Your task to perform on an android device: set the stopwatch Image 0: 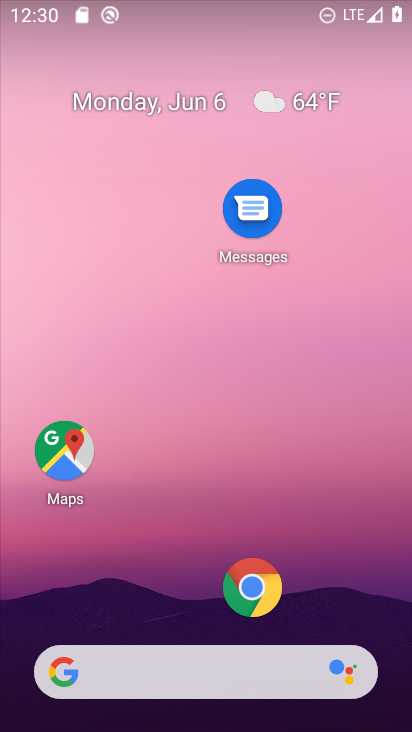
Step 0: drag from (132, 621) to (170, 38)
Your task to perform on an android device: set the stopwatch Image 1: 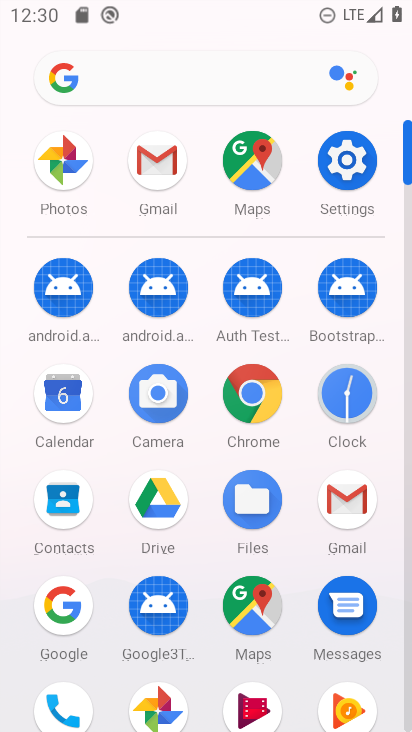
Step 1: click (346, 385)
Your task to perform on an android device: set the stopwatch Image 2: 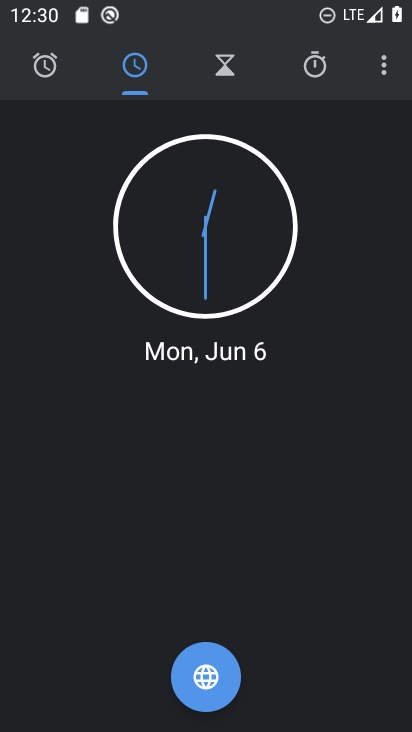
Step 2: click (316, 61)
Your task to perform on an android device: set the stopwatch Image 3: 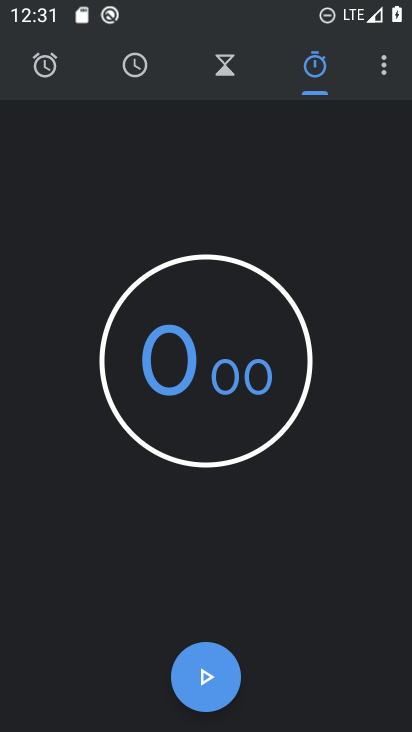
Step 3: click (204, 673)
Your task to perform on an android device: set the stopwatch Image 4: 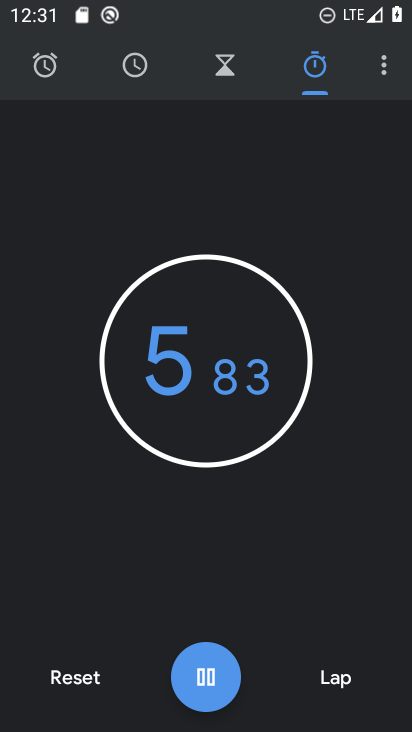
Step 4: task complete